Your task to perform on an android device: Open Reddit.com Image 0: 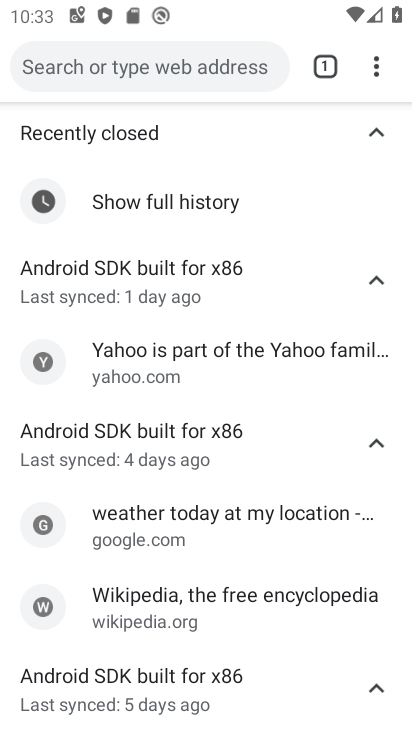
Step 0: click (216, 56)
Your task to perform on an android device: Open Reddit.com Image 1: 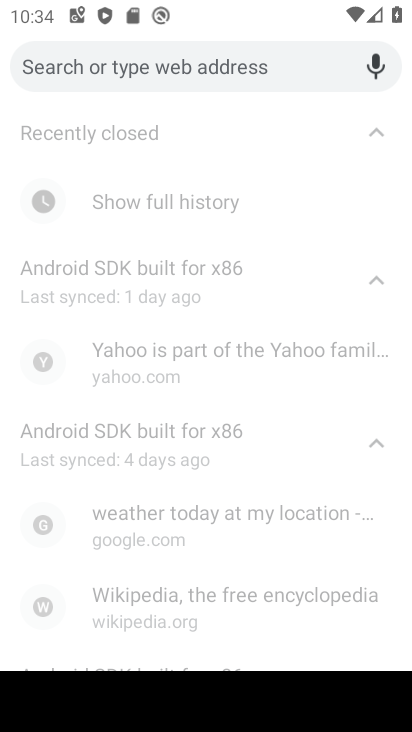
Step 1: type "reddit.com"
Your task to perform on an android device: Open Reddit.com Image 2: 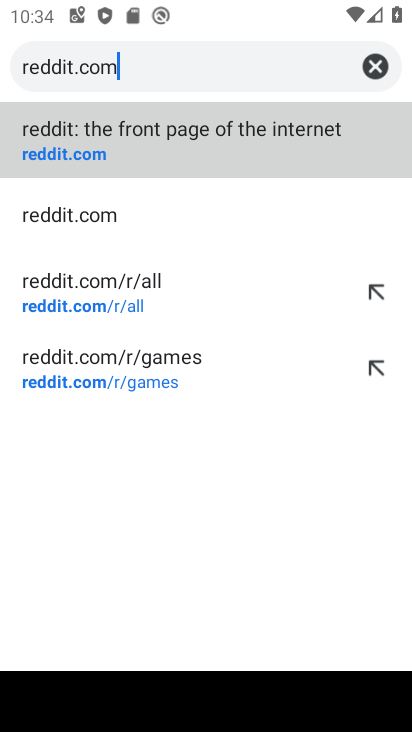
Step 2: click (87, 155)
Your task to perform on an android device: Open Reddit.com Image 3: 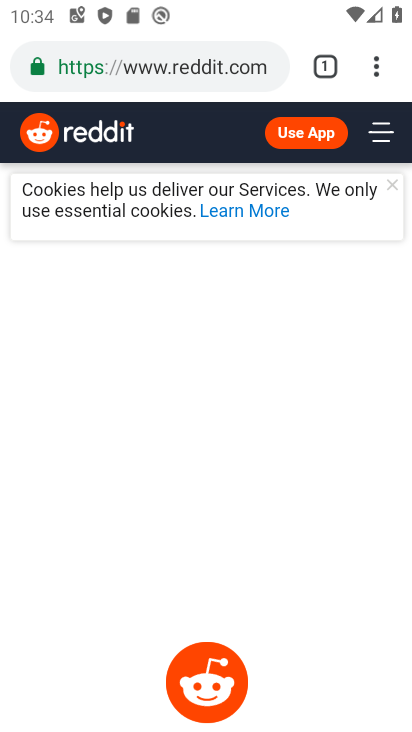
Step 3: task complete